Your task to perform on an android device: toggle location history Image 0: 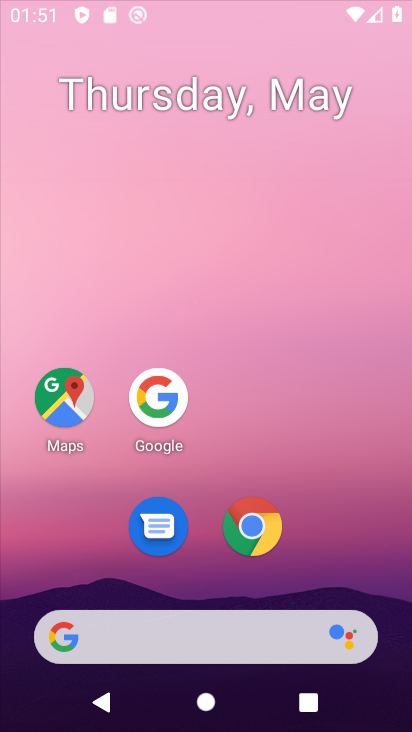
Step 0: drag from (285, 5) to (63, 173)
Your task to perform on an android device: toggle location history Image 1: 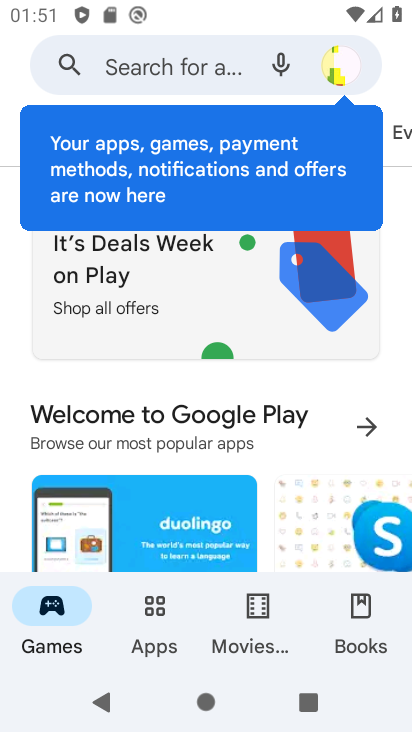
Step 1: drag from (277, 540) to (273, 108)
Your task to perform on an android device: toggle location history Image 2: 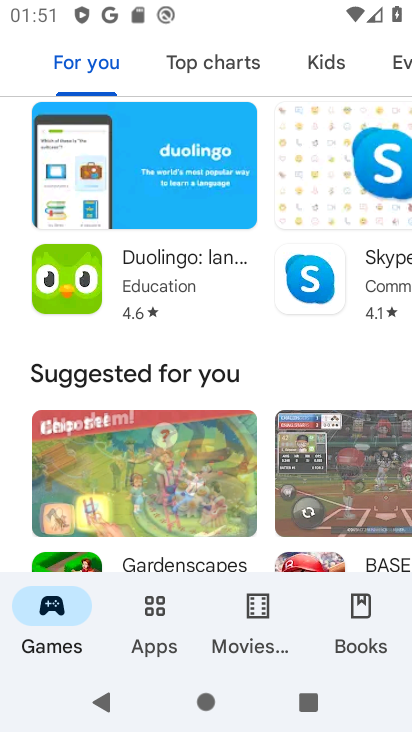
Step 2: press home button
Your task to perform on an android device: toggle location history Image 3: 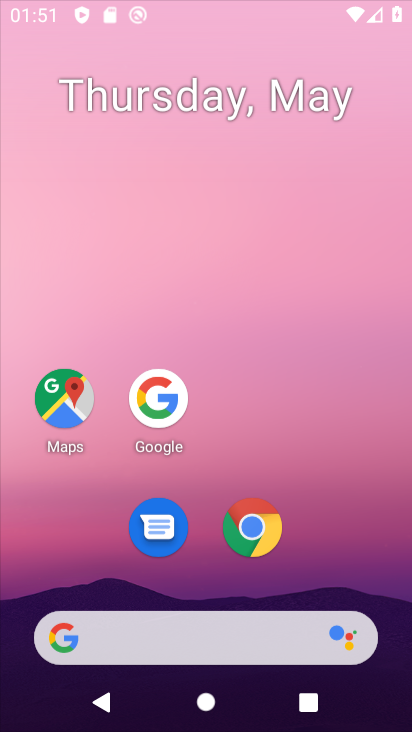
Step 3: drag from (159, 563) to (252, 34)
Your task to perform on an android device: toggle location history Image 4: 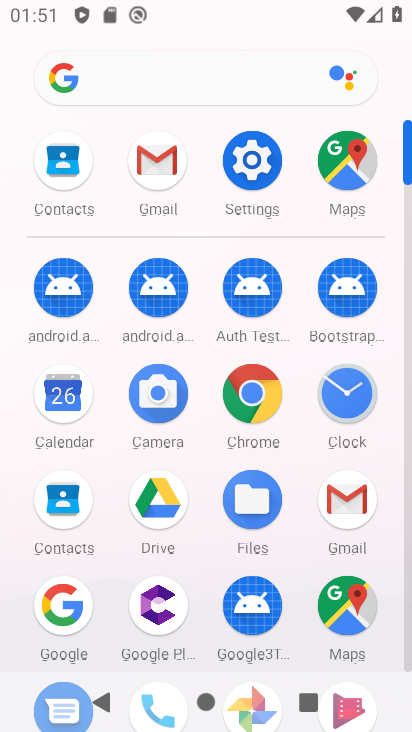
Step 4: click (245, 171)
Your task to perform on an android device: toggle location history Image 5: 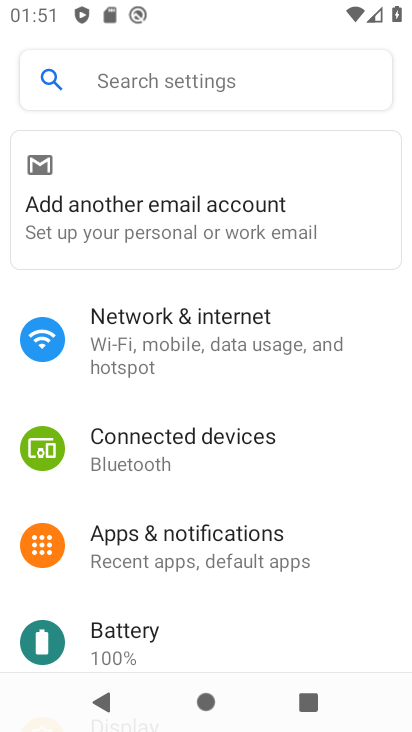
Step 5: drag from (201, 583) to (300, 6)
Your task to perform on an android device: toggle location history Image 6: 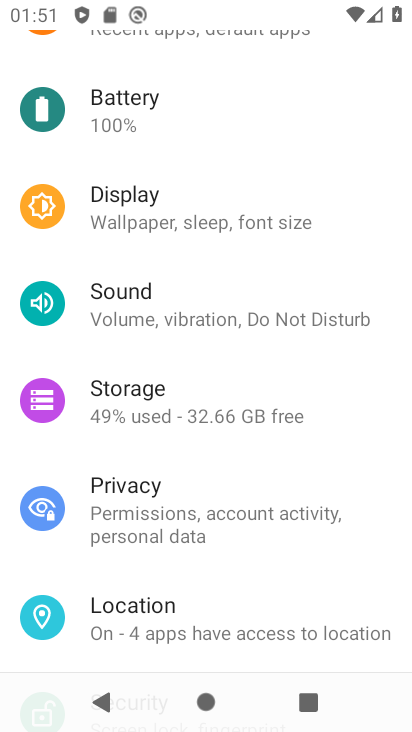
Step 6: click (145, 607)
Your task to perform on an android device: toggle location history Image 7: 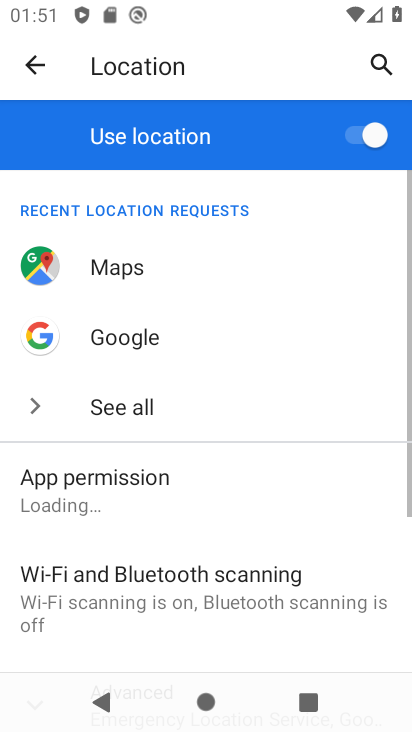
Step 7: drag from (266, 494) to (301, 241)
Your task to perform on an android device: toggle location history Image 8: 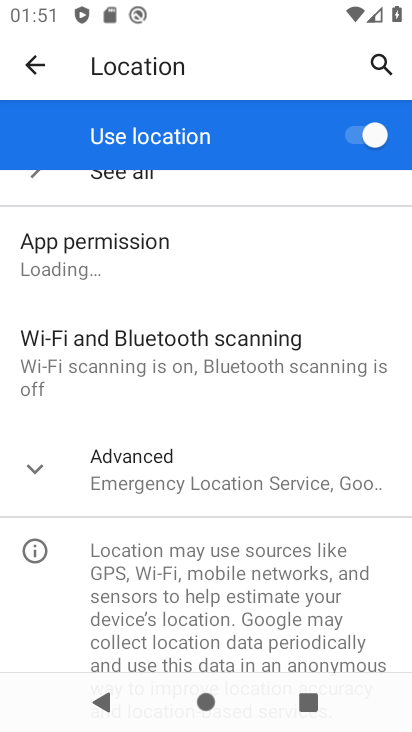
Step 8: click (134, 501)
Your task to perform on an android device: toggle location history Image 9: 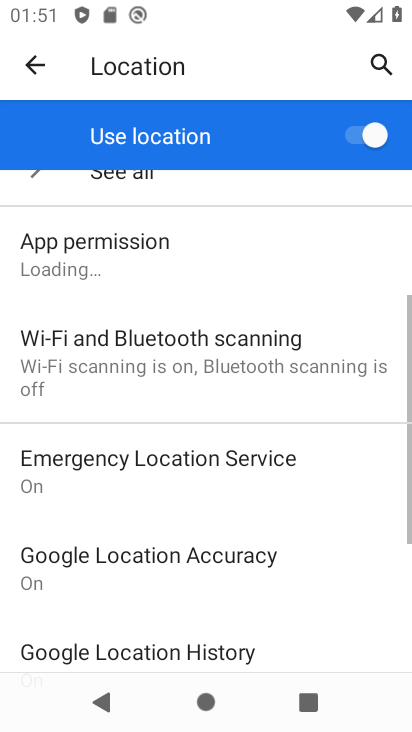
Step 9: drag from (264, 630) to (316, 320)
Your task to perform on an android device: toggle location history Image 10: 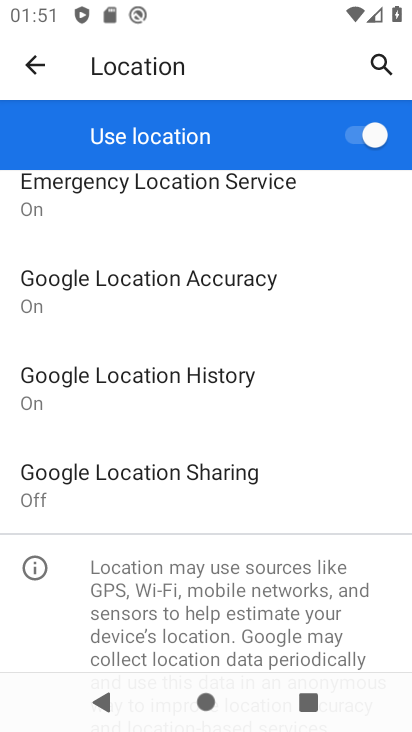
Step 10: click (196, 393)
Your task to perform on an android device: toggle location history Image 11: 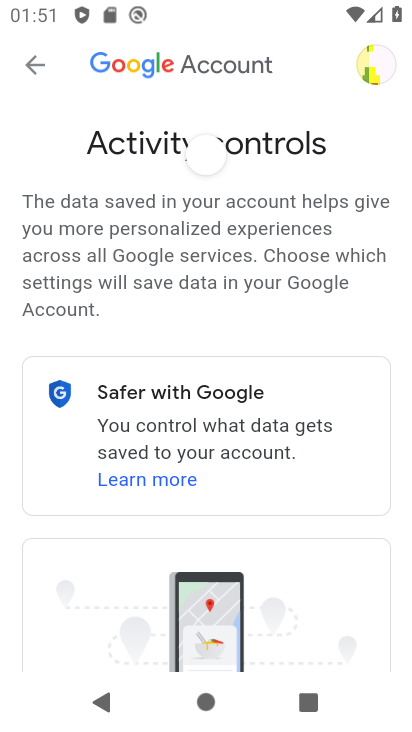
Step 11: drag from (283, 559) to (380, 200)
Your task to perform on an android device: toggle location history Image 12: 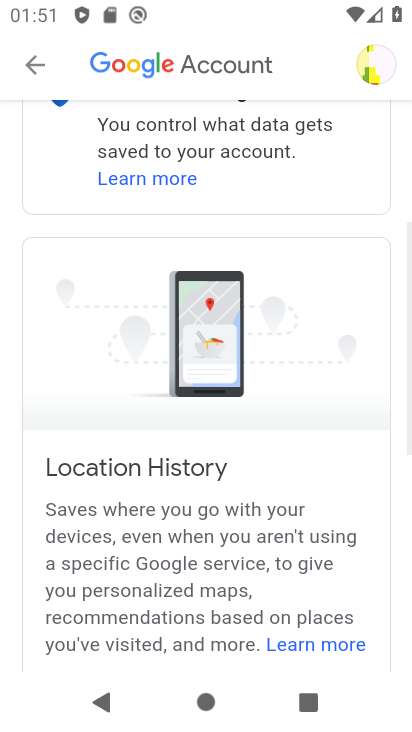
Step 12: drag from (283, 558) to (357, 216)
Your task to perform on an android device: toggle location history Image 13: 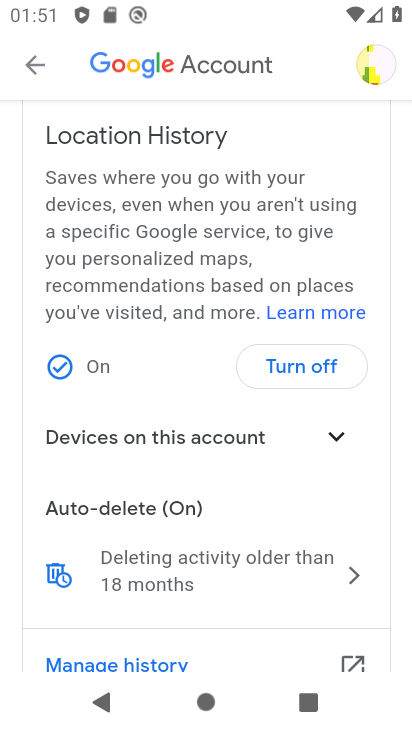
Step 13: click (295, 359)
Your task to perform on an android device: toggle location history Image 14: 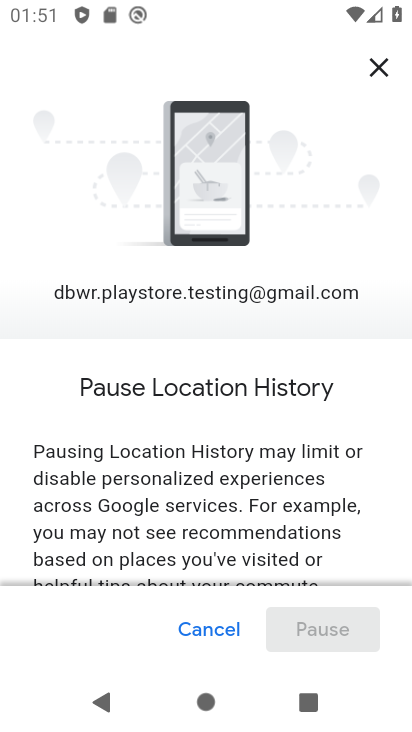
Step 14: drag from (248, 589) to (339, 301)
Your task to perform on an android device: toggle location history Image 15: 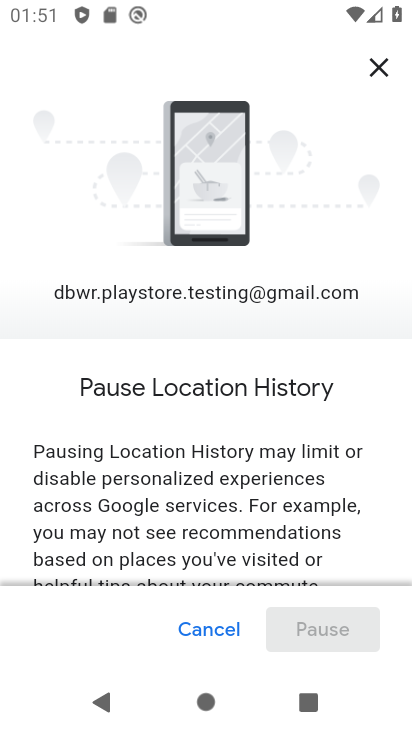
Step 15: drag from (263, 523) to (326, 94)
Your task to perform on an android device: toggle location history Image 16: 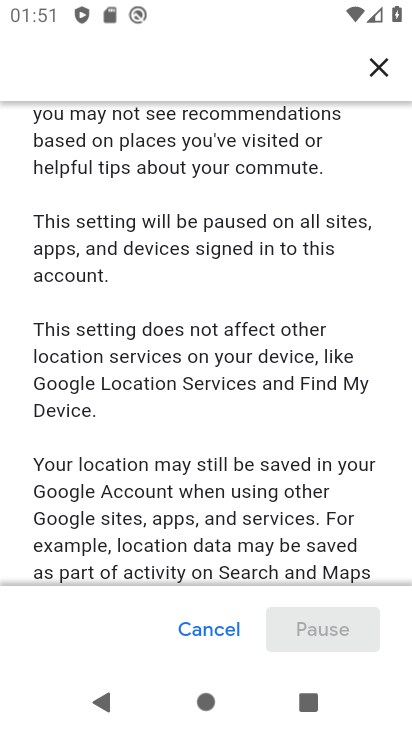
Step 16: drag from (236, 502) to (147, 17)
Your task to perform on an android device: toggle location history Image 17: 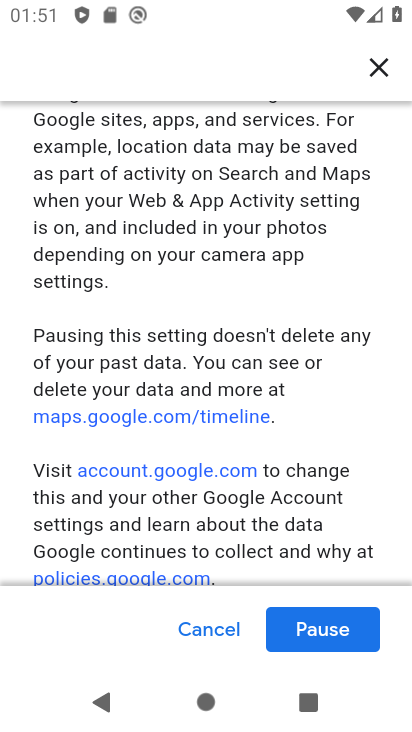
Step 17: click (307, 610)
Your task to perform on an android device: toggle location history Image 18: 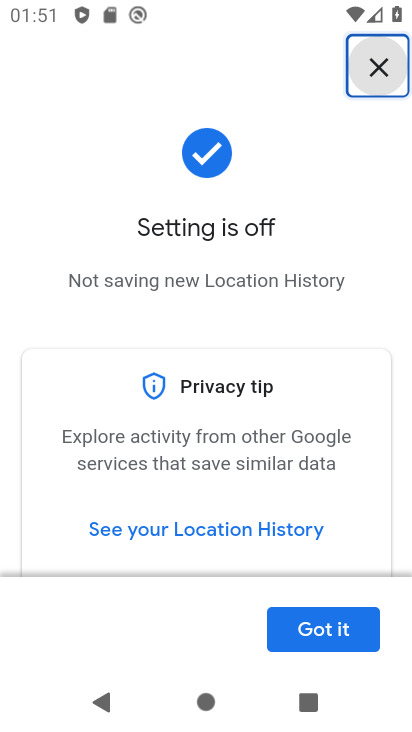
Step 18: click (289, 633)
Your task to perform on an android device: toggle location history Image 19: 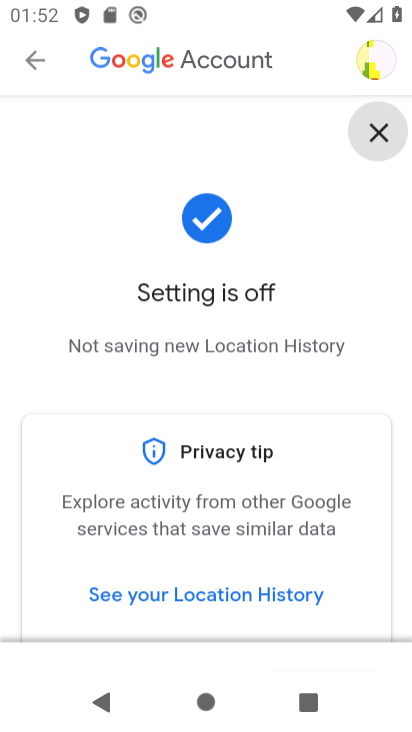
Step 19: task complete